Your task to perform on an android device: empty trash in google photos Image 0: 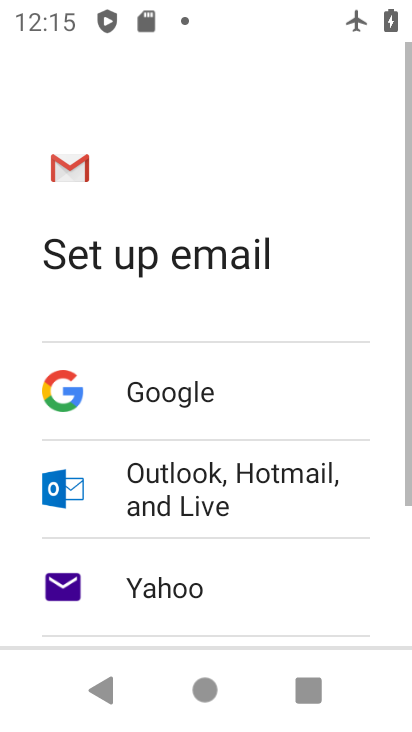
Step 0: press home button
Your task to perform on an android device: empty trash in google photos Image 1: 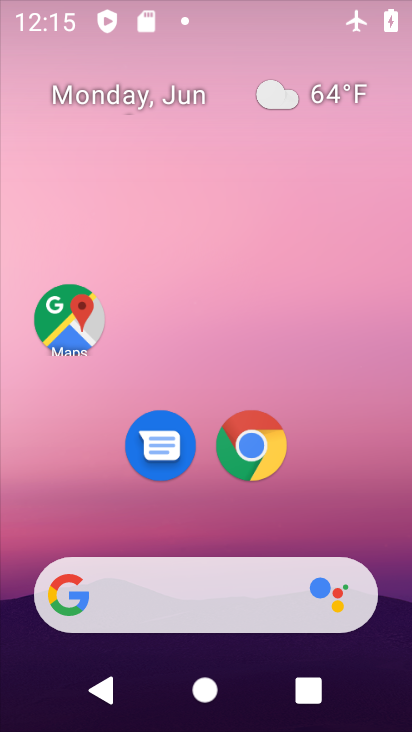
Step 1: drag from (295, 581) to (288, 2)
Your task to perform on an android device: empty trash in google photos Image 2: 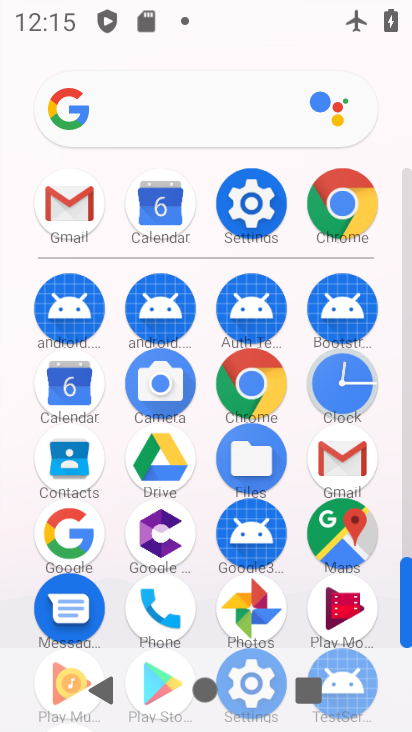
Step 2: click (272, 611)
Your task to perform on an android device: empty trash in google photos Image 3: 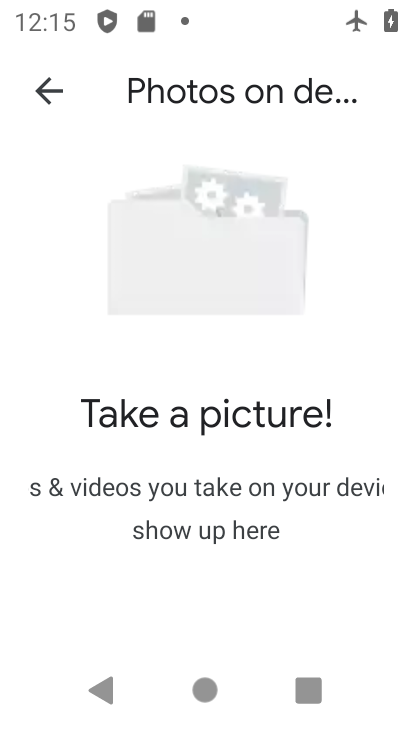
Step 3: press back button
Your task to perform on an android device: empty trash in google photos Image 4: 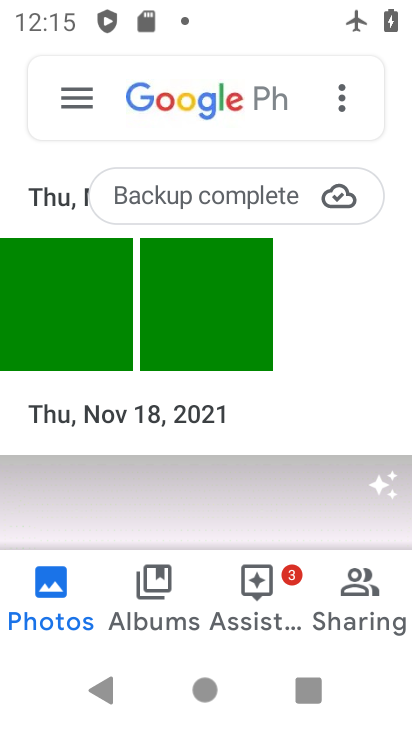
Step 4: click (61, 77)
Your task to perform on an android device: empty trash in google photos Image 5: 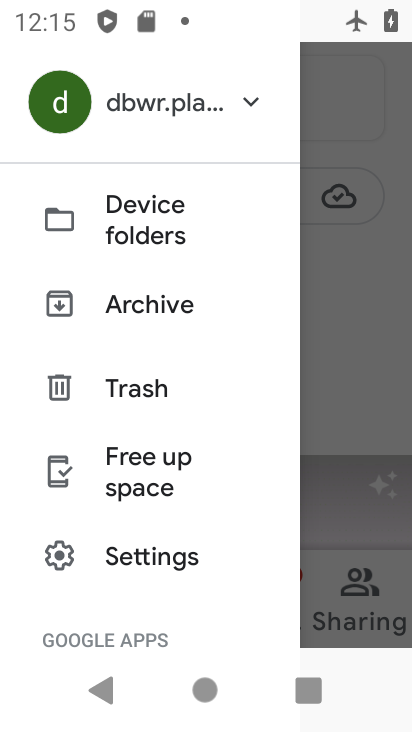
Step 5: click (195, 396)
Your task to perform on an android device: empty trash in google photos Image 6: 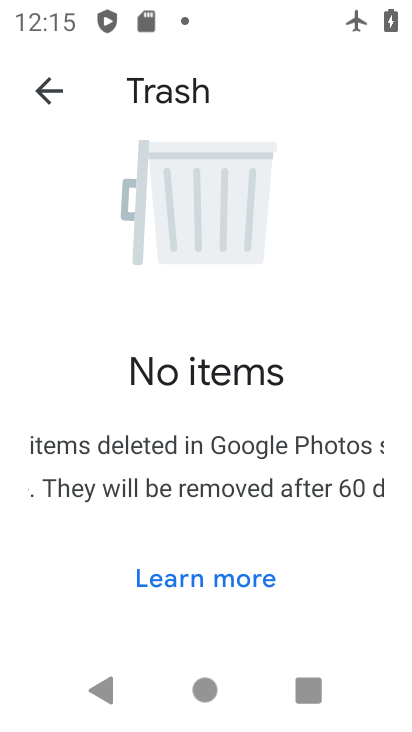
Step 6: task complete